Your task to perform on an android device: When is my next appointment? Image 0: 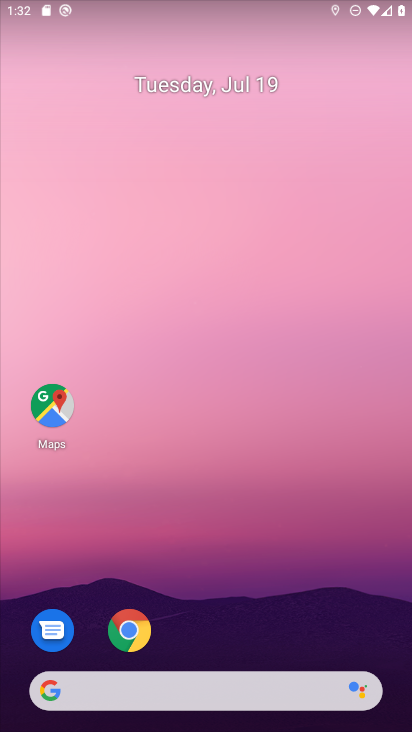
Step 0: drag from (145, 682) to (325, 131)
Your task to perform on an android device: When is my next appointment? Image 1: 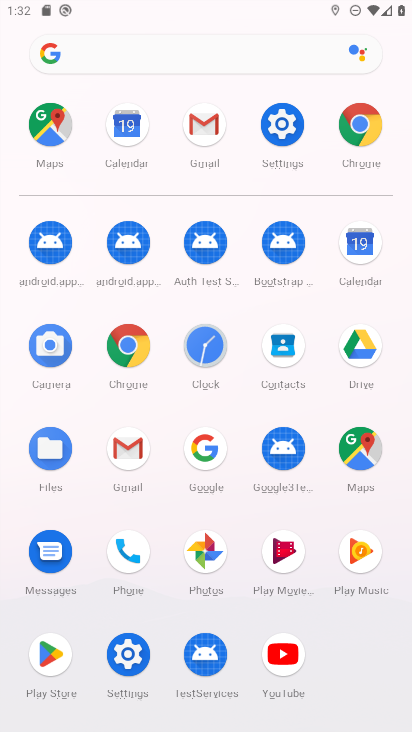
Step 1: click (354, 243)
Your task to perform on an android device: When is my next appointment? Image 2: 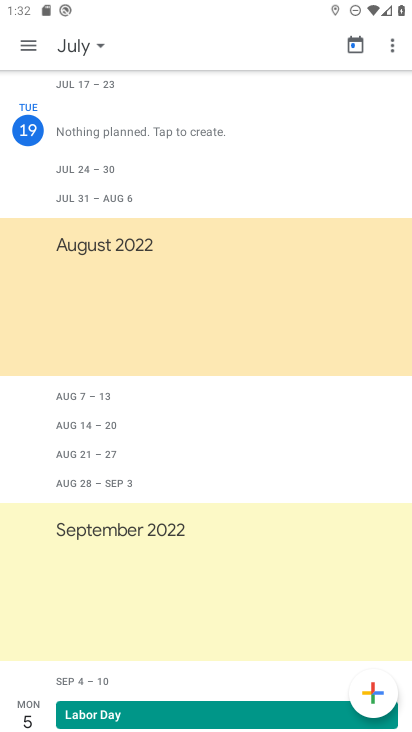
Step 2: task complete